Your task to perform on an android device: Open Chrome and go to the settings page Image 0: 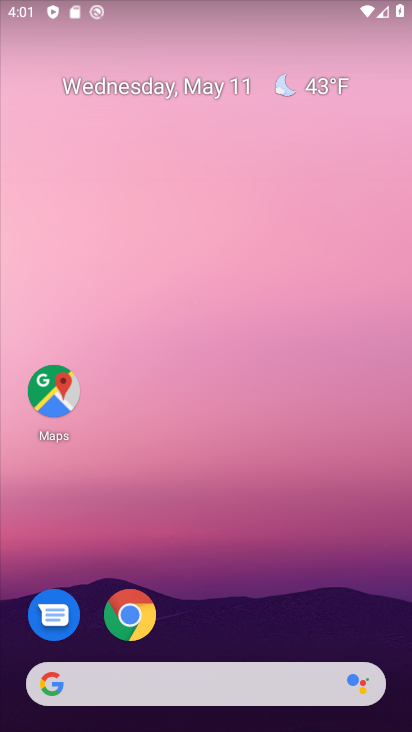
Step 0: drag from (235, 557) to (32, 3)
Your task to perform on an android device: Open Chrome and go to the settings page Image 1: 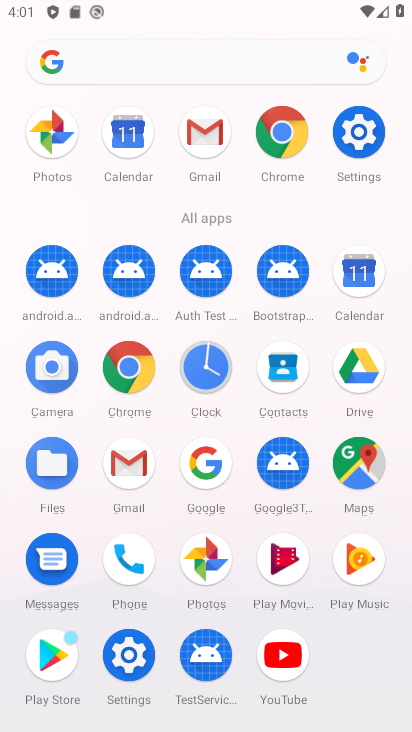
Step 1: click (127, 364)
Your task to perform on an android device: Open Chrome and go to the settings page Image 2: 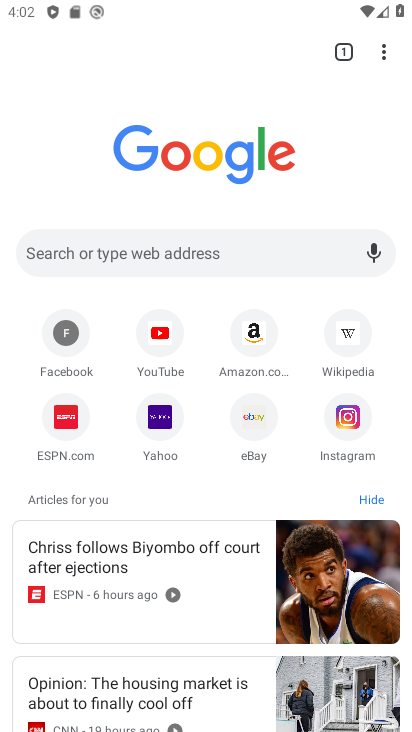
Step 2: click (379, 55)
Your task to perform on an android device: Open Chrome and go to the settings page Image 3: 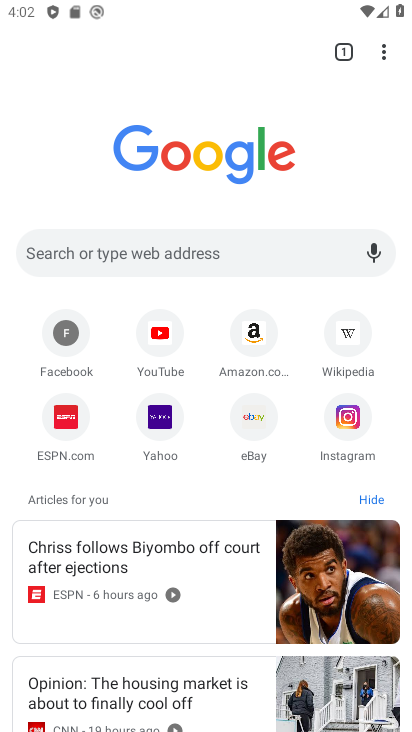
Step 3: task complete